Your task to perform on an android device: What's the weather going to be this weekend? Image 0: 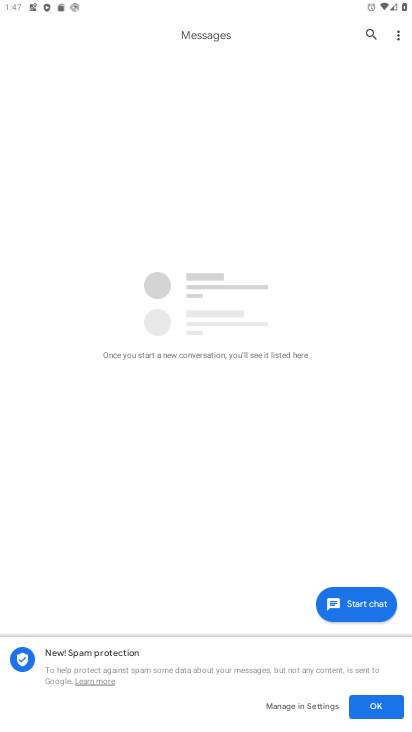
Step 0: press home button
Your task to perform on an android device: What's the weather going to be this weekend? Image 1: 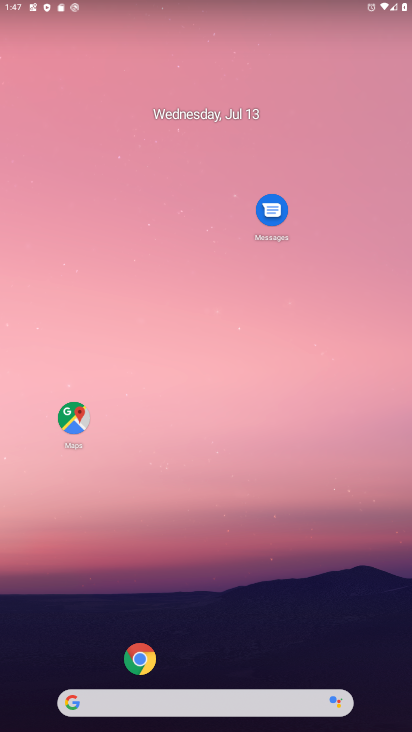
Step 1: click (118, 705)
Your task to perform on an android device: What's the weather going to be this weekend? Image 2: 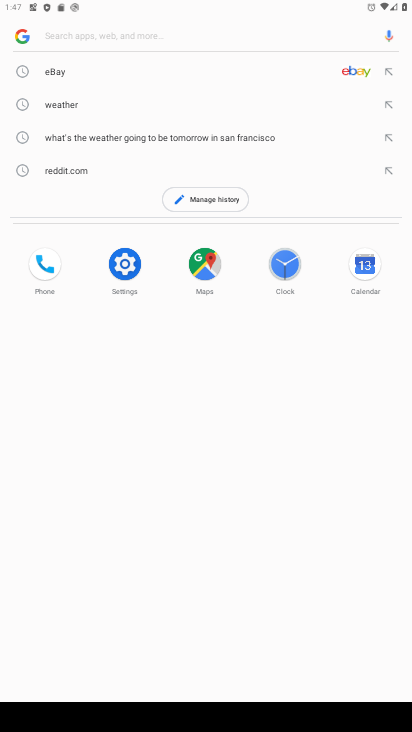
Step 2: type "What's the weather going to be this weekend?"
Your task to perform on an android device: What's the weather going to be this weekend? Image 3: 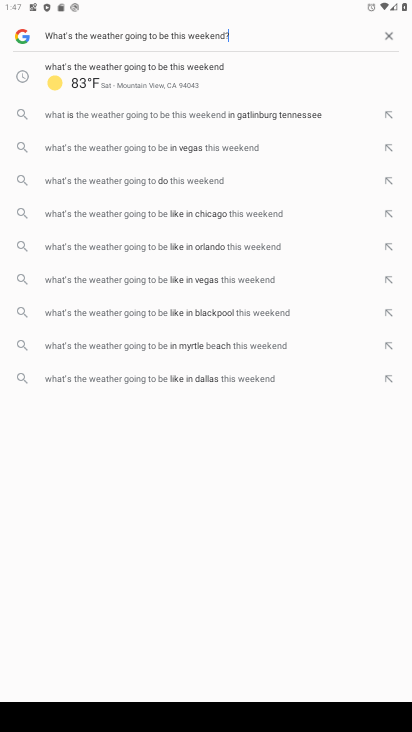
Step 3: type ""
Your task to perform on an android device: What's the weather going to be this weekend? Image 4: 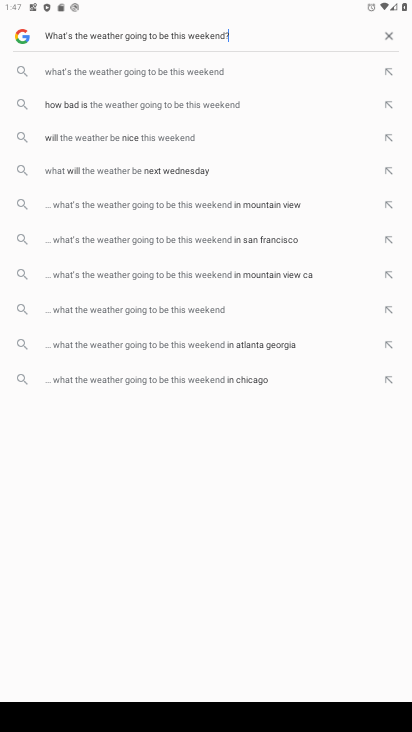
Step 4: type ""
Your task to perform on an android device: What's the weather going to be this weekend? Image 5: 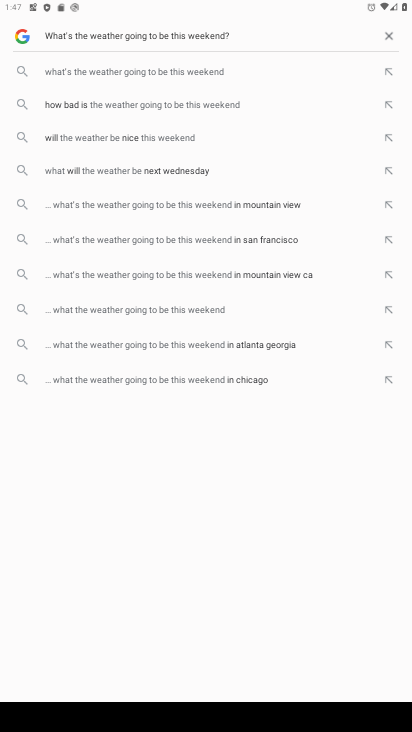
Step 5: type ""
Your task to perform on an android device: What's the weather going to be this weekend? Image 6: 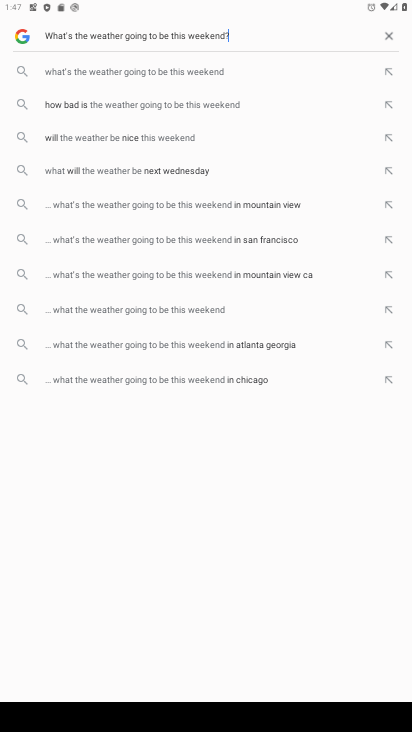
Step 6: click (124, 67)
Your task to perform on an android device: What's the weather going to be this weekend? Image 7: 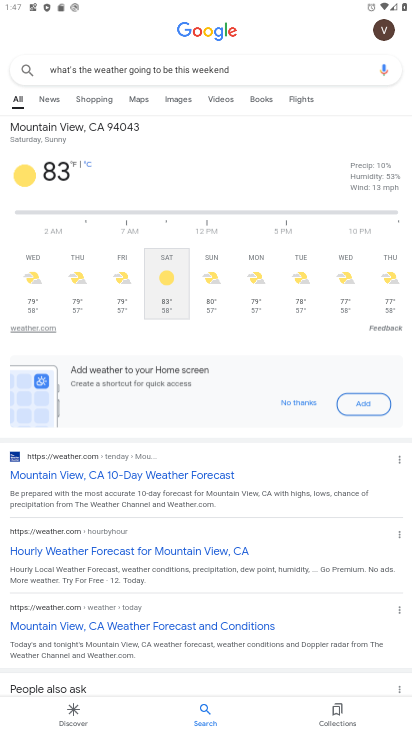
Step 7: task complete